Your task to perform on an android device: Open Wikipedia Image 0: 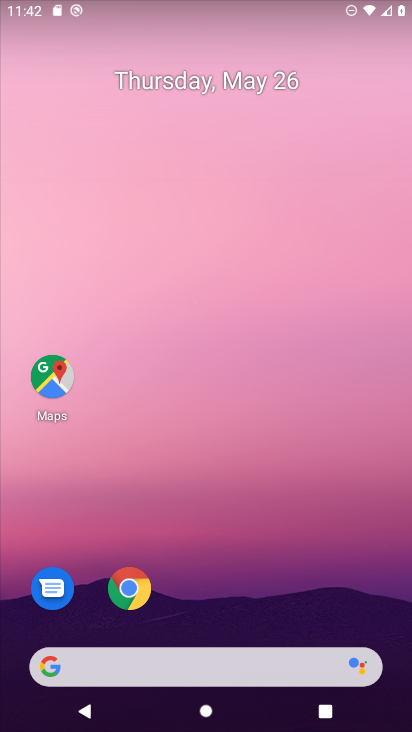
Step 0: click (130, 590)
Your task to perform on an android device: Open Wikipedia Image 1: 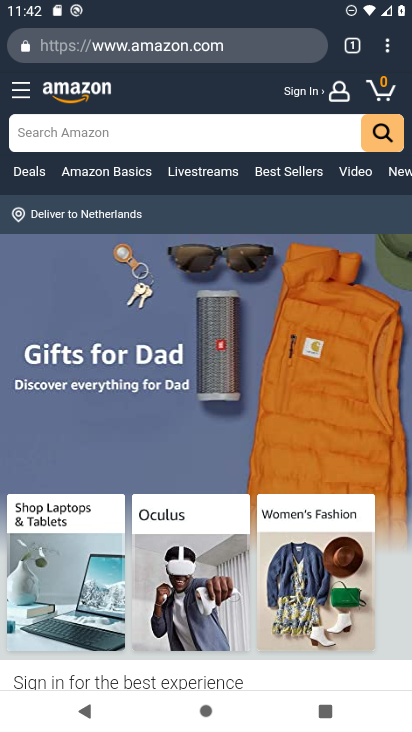
Step 1: click (263, 45)
Your task to perform on an android device: Open Wikipedia Image 2: 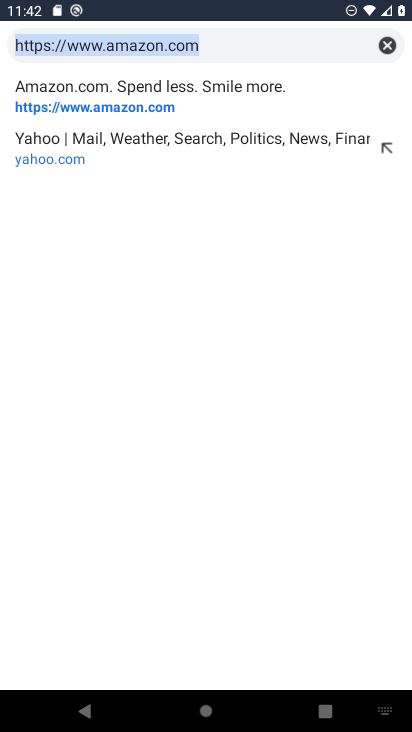
Step 2: click (385, 44)
Your task to perform on an android device: Open Wikipedia Image 3: 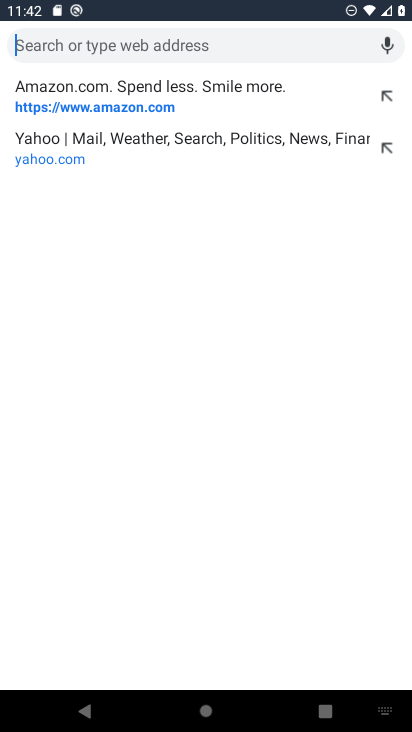
Step 3: type "wikipedia"
Your task to perform on an android device: Open Wikipedia Image 4: 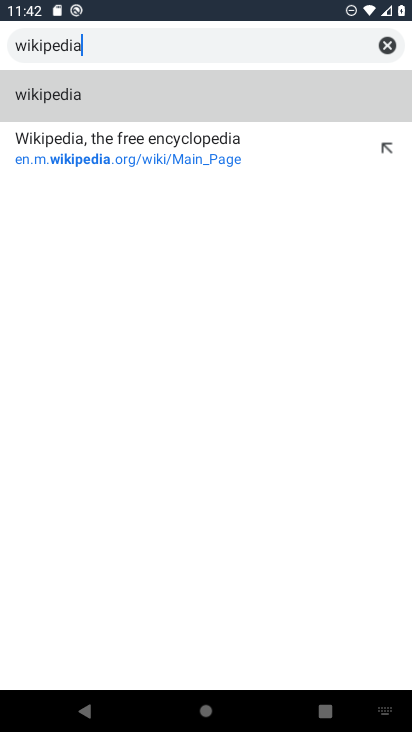
Step 4: click (53, 94)
Your task to perform on an android device: Open Wikipedia Image 5: 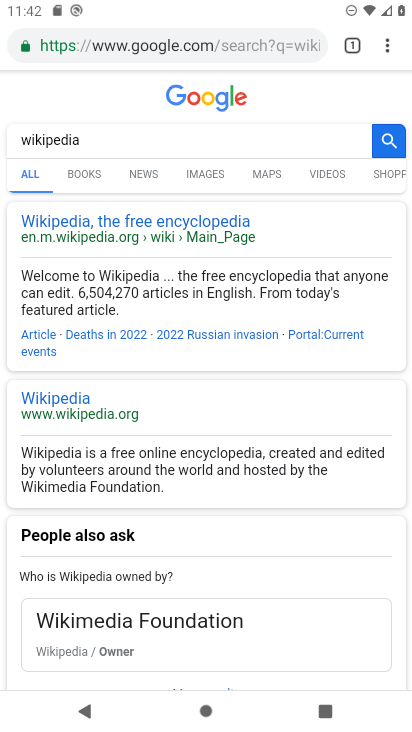
Step 5: click (49, 407)
Your task to perform on an android device: Open Wikipedia Image 6: 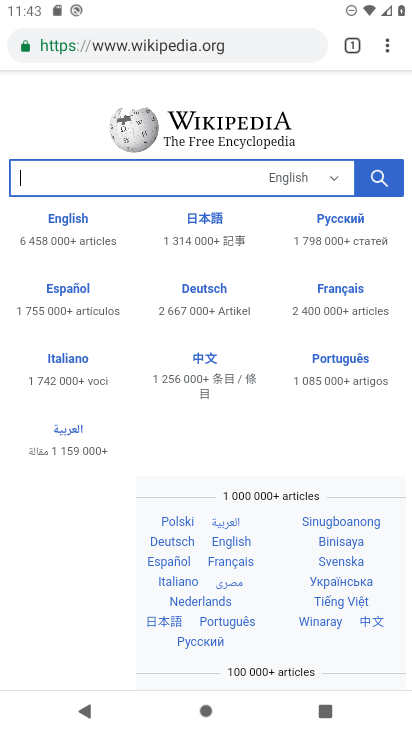
Step 6: task complete